Your task to perform on an android device: Search for Mexican restaurants on Maps Image 0: 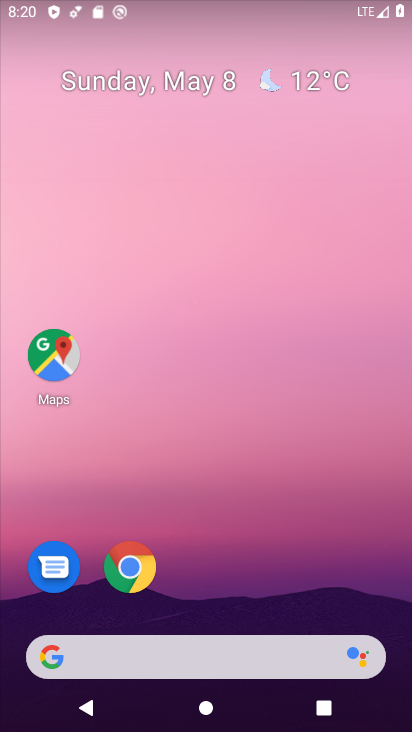
Step 0: click (61, 350)
Your task to perform on an android device: Search for Mexican restaurants on Maps Image 1: 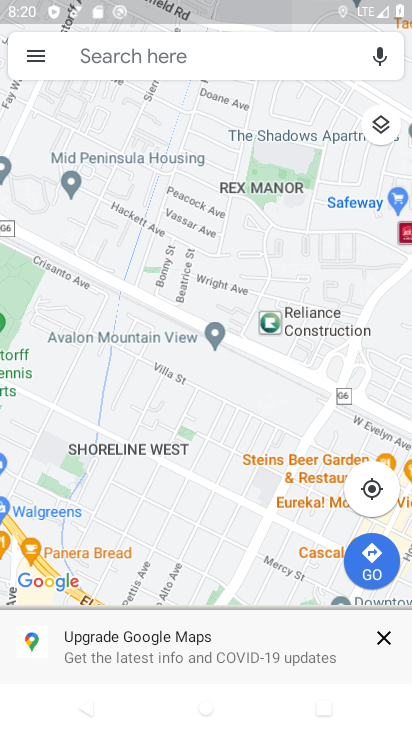
Step 1: click (228, 71)
Your task to perform on an android device: Search for Mexican restaurants on Maps Image 2: 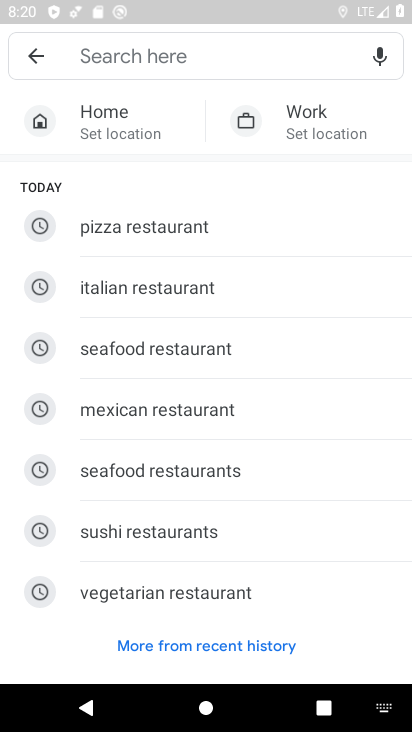
Step 2: click (175, 406)
Your task to perform on an android device: Search for Mexican restaurants on Maps Image 3: 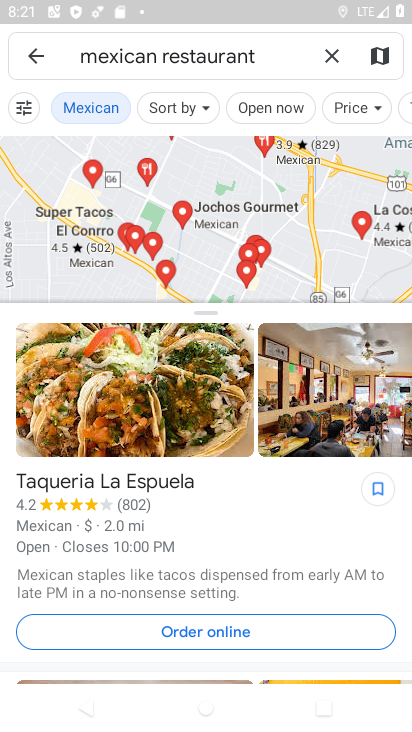
Step 3: task complete